Your task to perform on an android device: turn pop-ups on in chrome Image 0: 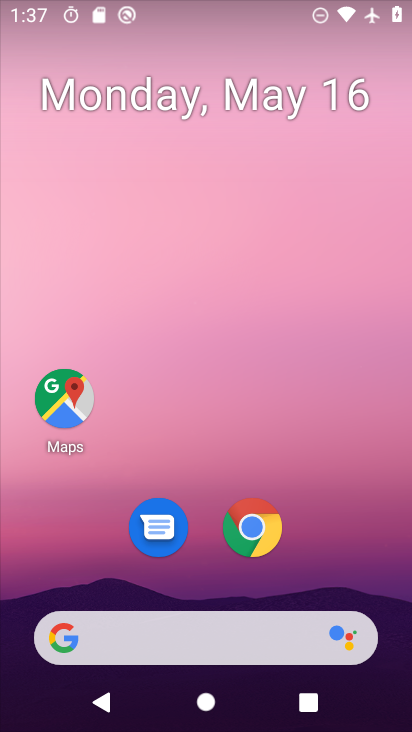
Step 0: press home button
Your task to perform on an android device: turn pop-ups on in chrome Image 1: 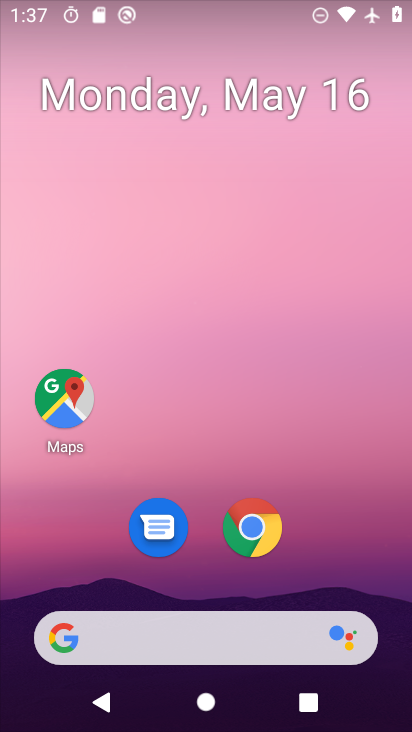
Step 1: click (248, 535)
Your task to perform on an android device: turn pop-ups on in chrome Image 2: 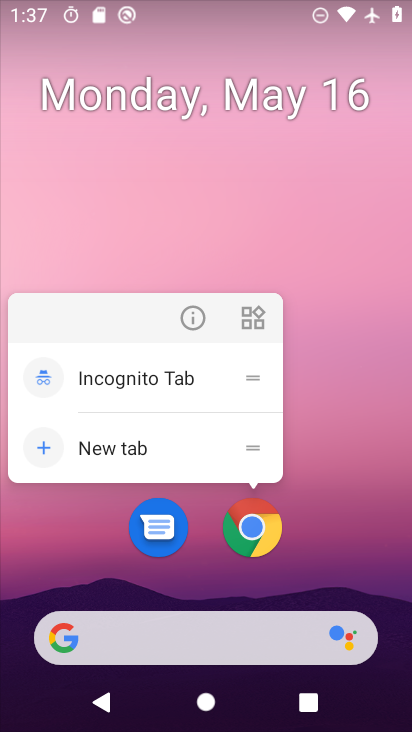
Step 2: click (259, 525)
Your task to perform on an android device: turn pop-ups on in chrome Image 3: 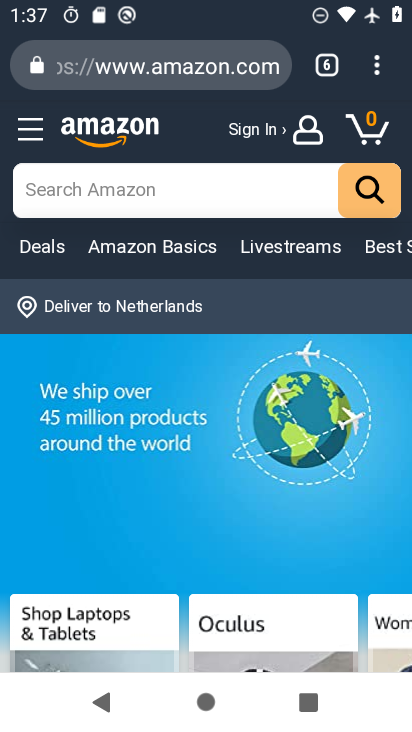
Step 3: drag from (379, 68) to (210, 578)
Your task to perform on an android device: turn pop-ups on in chrome Image 4: 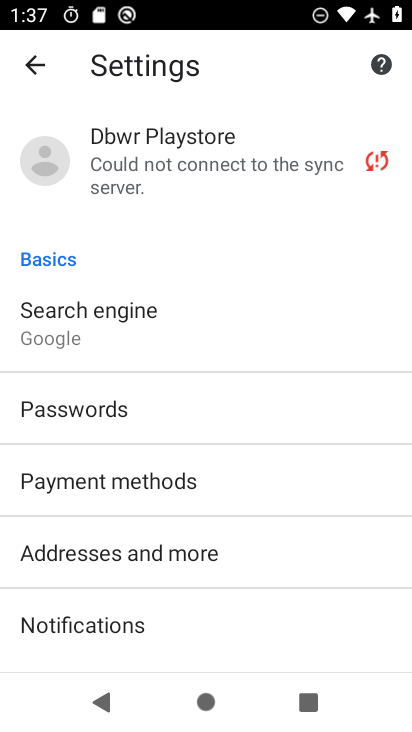
Step 4: drag from (194, 596) to (344, 195)
Your task to perform on an android device: turn pop-ups on in chrome Image 5: 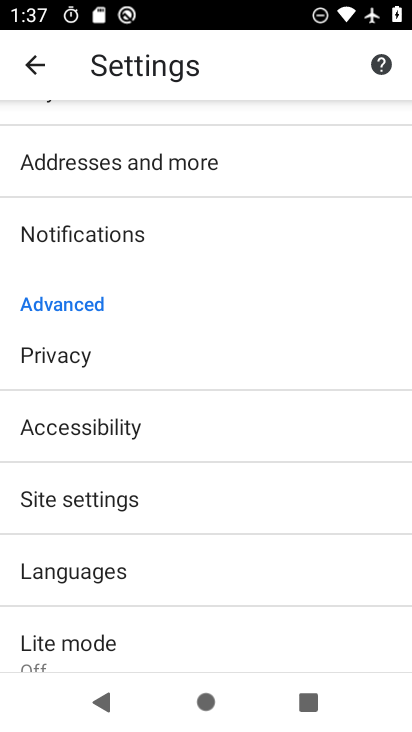
Step 5: click (120, 503)
Your task to perform on an android device: turn pop-ups on in chrome Image 6: 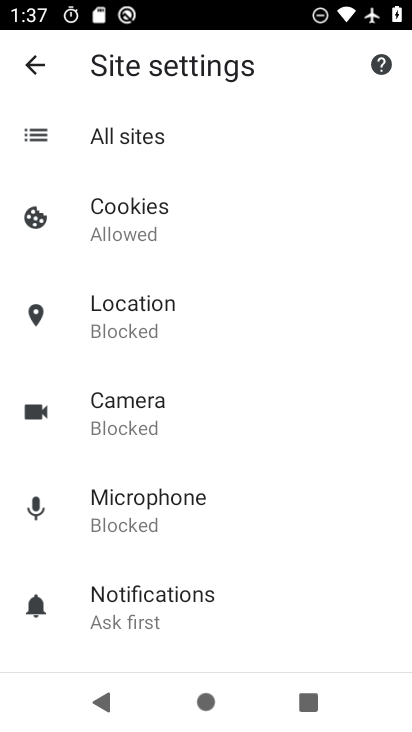
Step 6: drag from (213, 570) to (343, 145)
Your task to perform on an android device: turn pop-ups on in chrome Image 7: 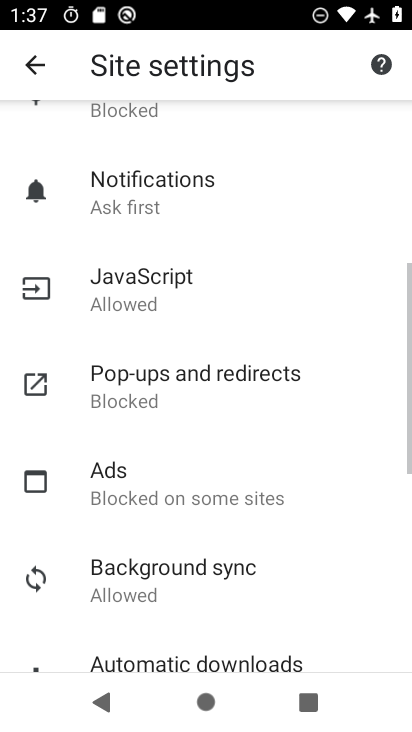
Step 7: click (223, 431)
Your task to perform on an android device: turn pop-ups on in chrome Image 8: 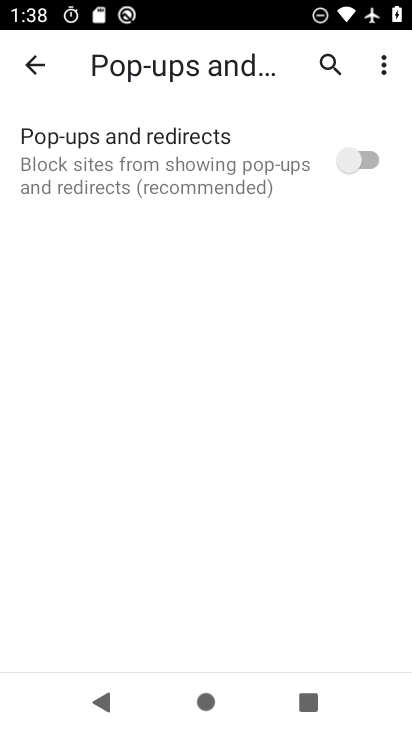
Step 8: click (370, 161)
Your task to perform on an android device: turn pop-ups on in chrome Image 9: 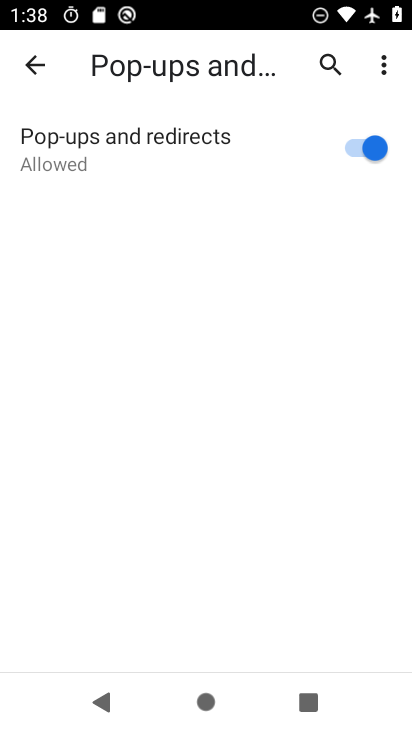
Step 9: task complete